Your task to perform on an android device: delete a single message in the gmail app Image 0: 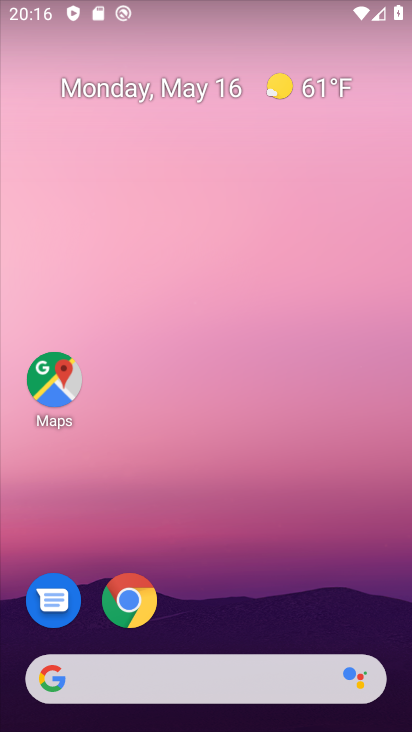
Step 0: drag from (162, 637) to (260, 23)
Your task to perform on an android device: delete a single message in the gmail app Image 1: 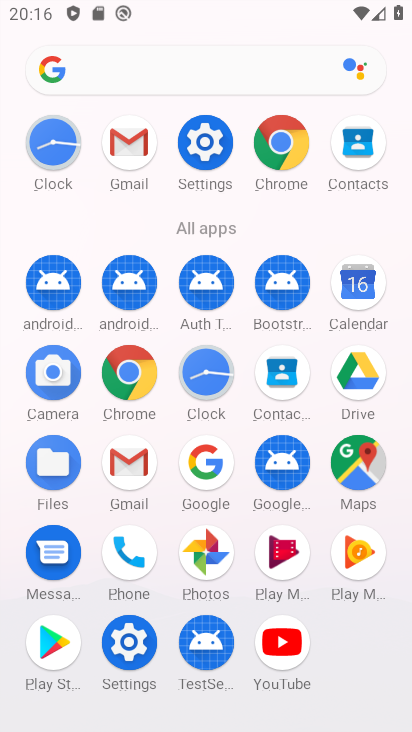
Step 1: click (114, 487)
Your task to perform on an android device: delete a single message in the gmail app Image 2: 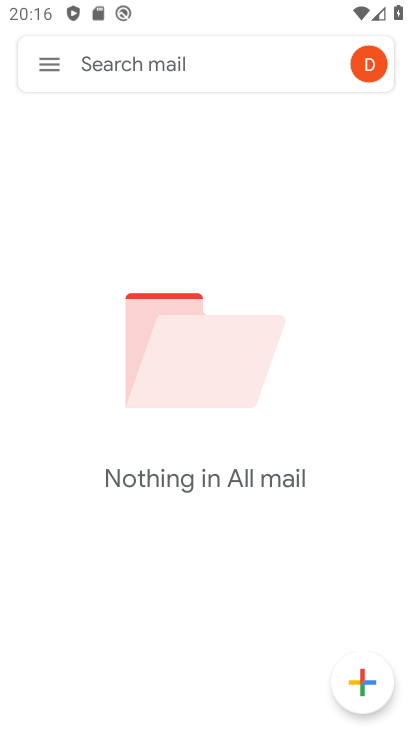
Step 2: task complete